Your task to perform on an android device: turn off location Image 0: 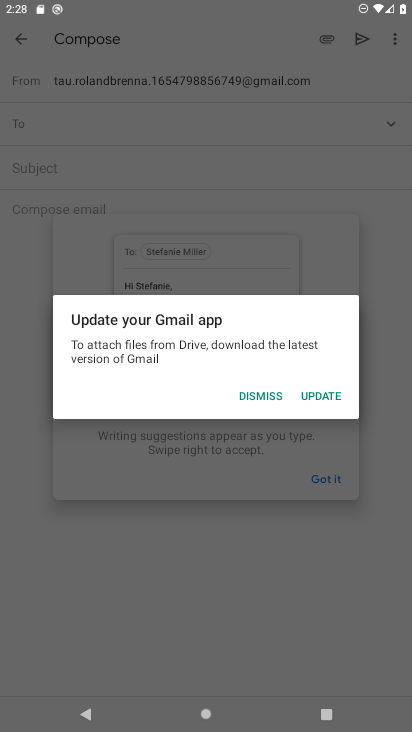
Step 0: press home button
Your task to perform on an android device: turn off location Image 1: 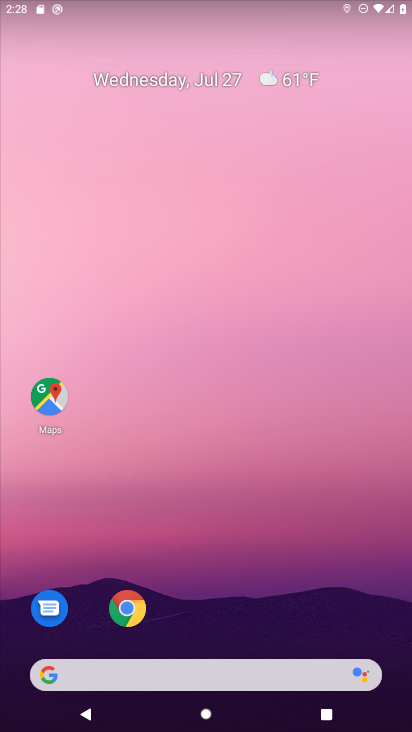
Step 1: drag from (294, 433) to (269, 727)
Your task to perform on an android device: turn off location Image 2: 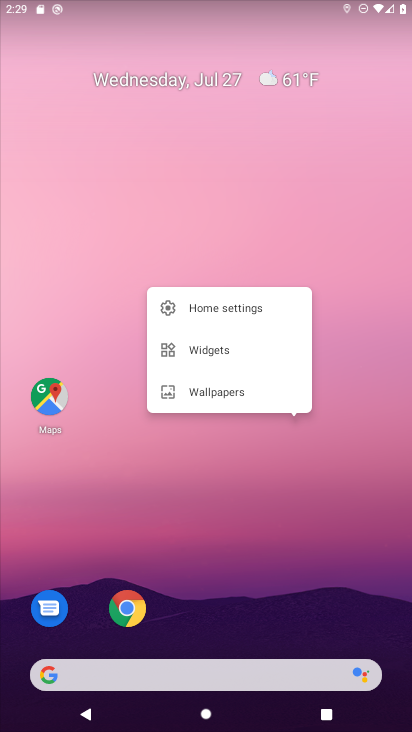
Step 2: drag from (243, 187) to (228, 522)
Your task to perform on an android device: turn off location Image 3: 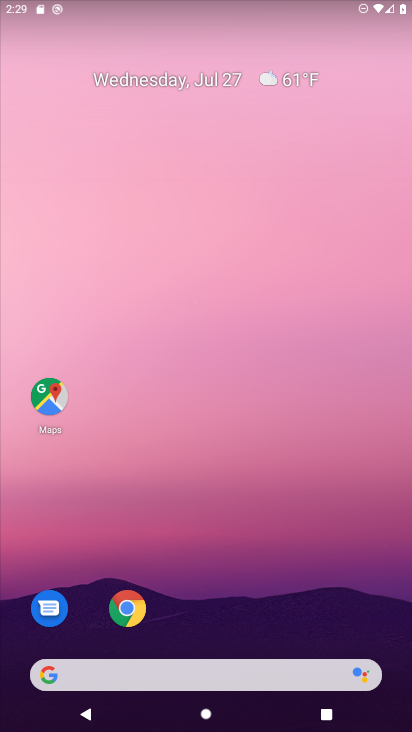
Step 3: drag from (167, 316) to (163, 595)
Your task to perform on an android device: turn off location Image 4: 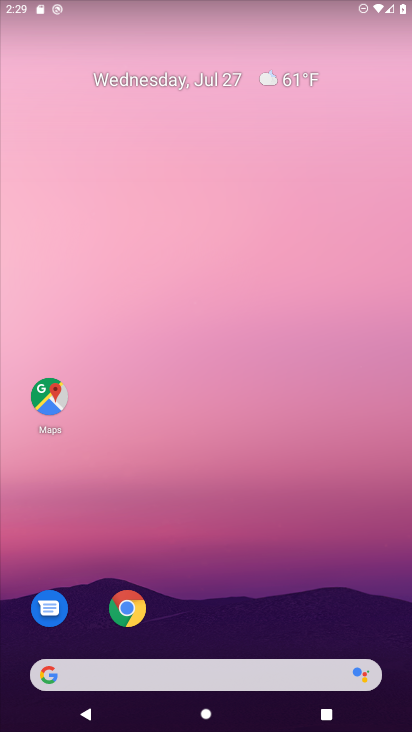
Step 4: click (331, 11)
Your task to perform on an android device: turn off location Image 5: 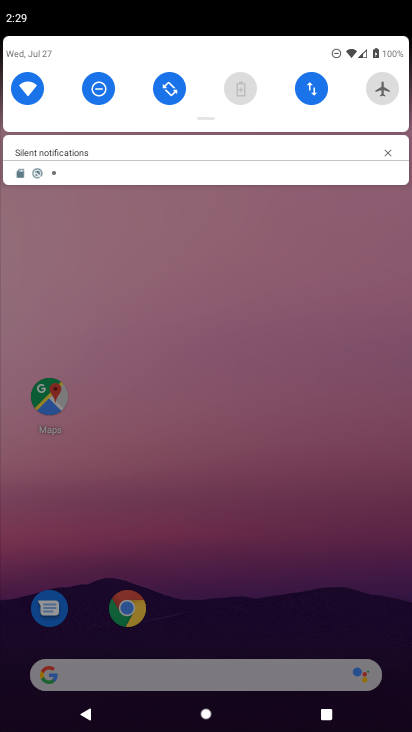
Step 5: drag from (331, 11) to (322, 264)
Your task to perform on an android device: turn off location Image 6: 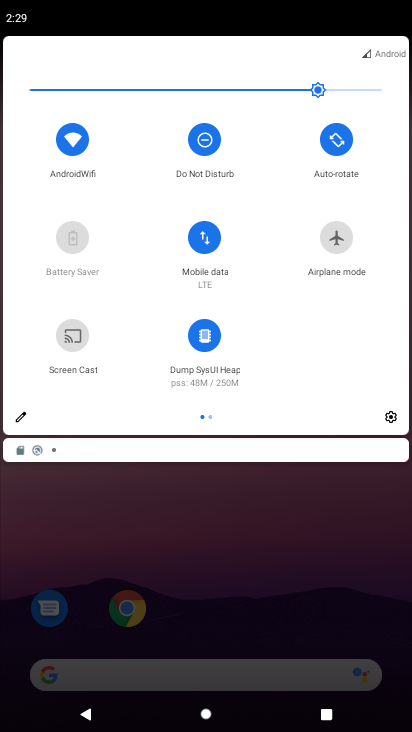
Step 6: drag from (350, 347) to (23, 302)
Your task to perform on an android device: turn off location Image 7: 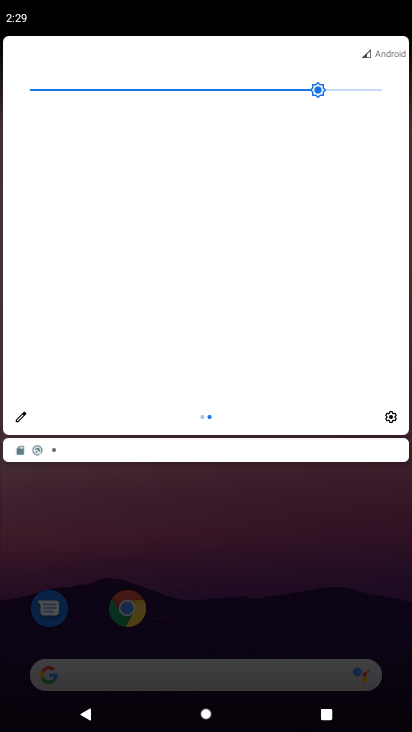
Step 7: click (385, 417)
Your task to perform on an android device: turn off location Image 8: 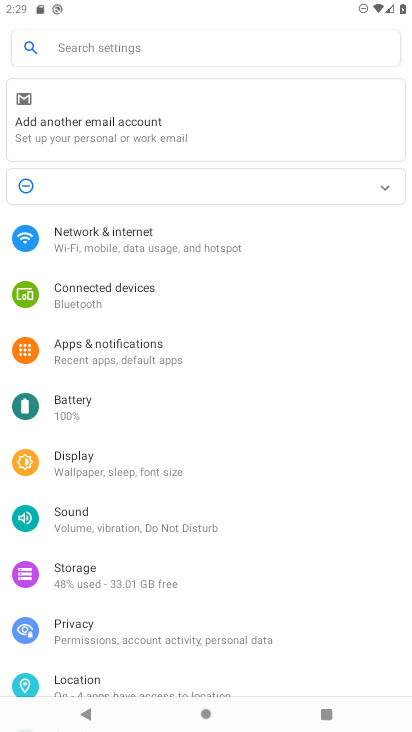
Step 8: click (86, 681)
Your task to perform on an android device: turn off location Image 9: 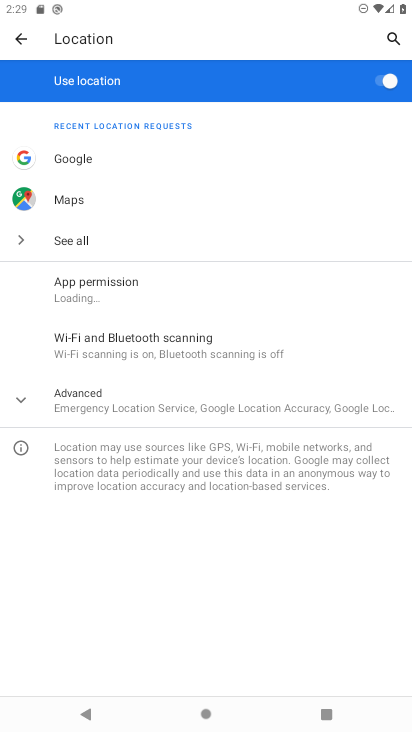
Step 9: click (389, 78)
Your task to perform on an android device: turn off location Image 10: 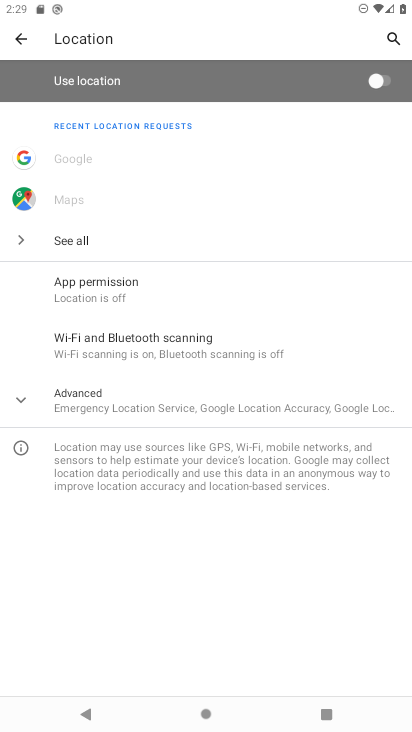
Step 10: task complete